Your task to perform on an android device: What is the news today? Image 0: 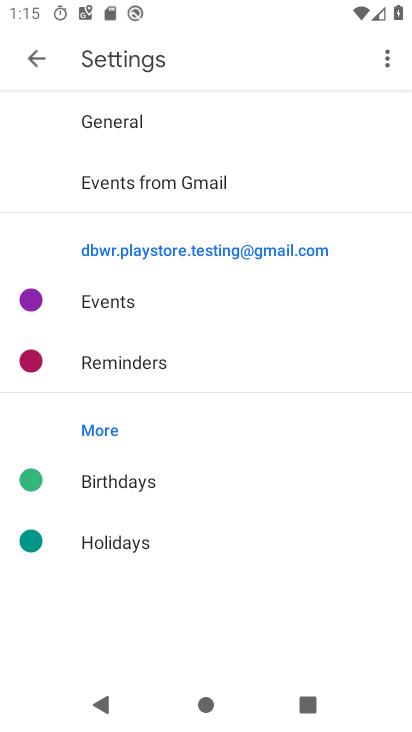
Step 0: press home button
Your task to perform on an android device: What is the news today? Image 1: 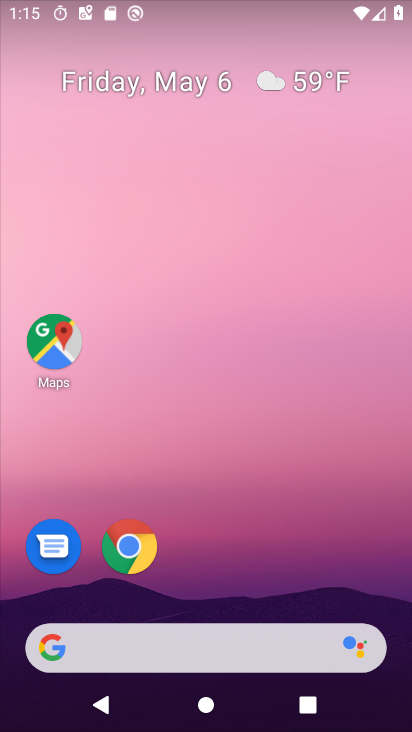
Step 1: click (131, 551)
Your task to perform on an android device: What is the news today? Image 2: 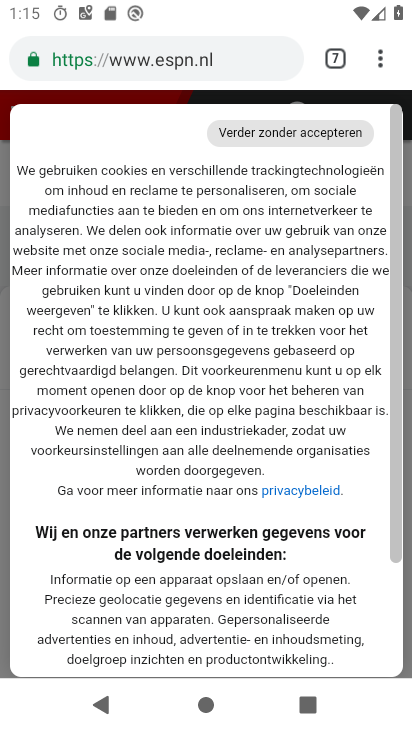
Step 2: click (340, 54)
Your task to perform on an android device: What is the news today? Image 3: 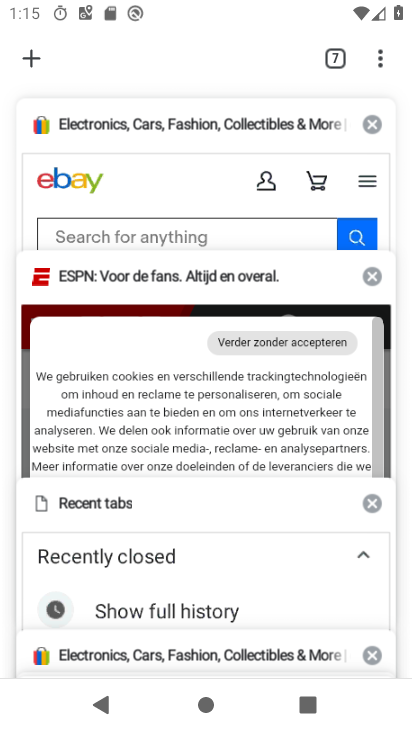
Step 3: click (26, 62)
Your task to perform on an android device: What is the news today? Image 4: 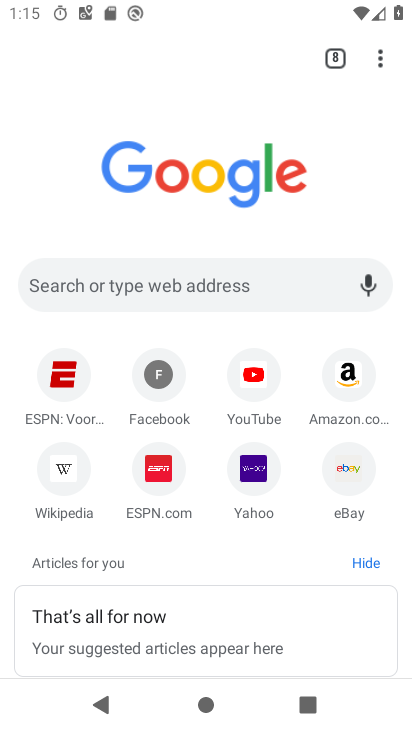
Step 4: click (170, 284)
Your task to perform on an android device: What is the news today? Image 5: 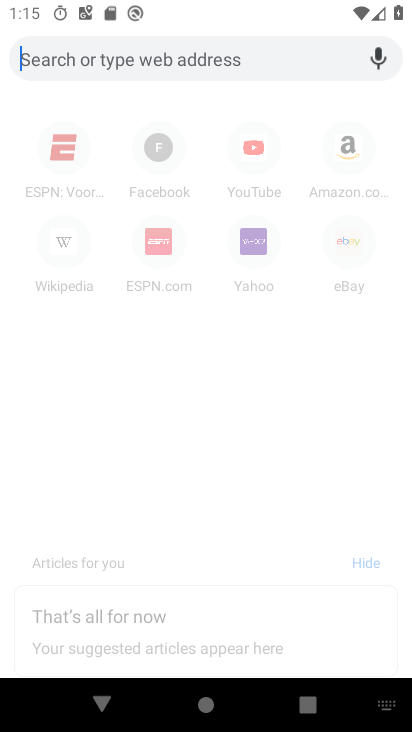
Step 5: type "news"
Your task to perform on an android device: What is the news today? Image 6: 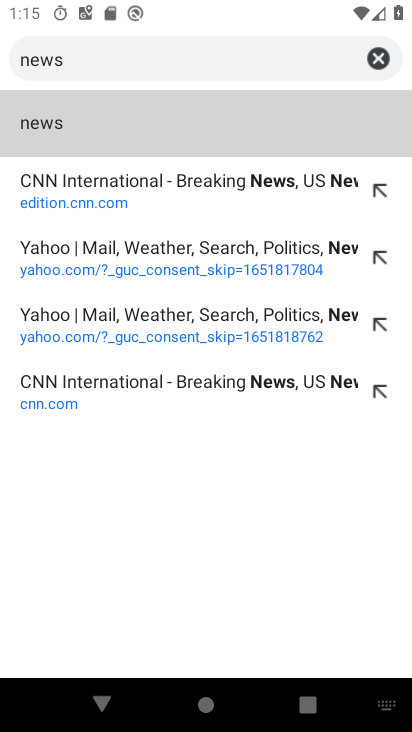
Step 6: click (103, 135)
Your task to perform on an android device: What is the news today? Image 7: 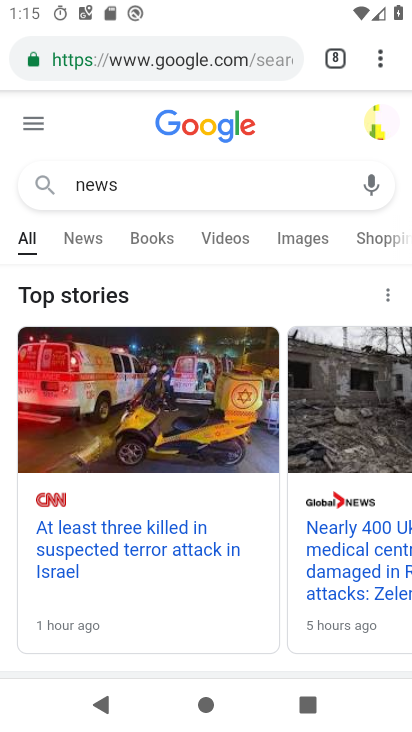
Step 7: click (86, 240)
Your task to perform on an android device: What is the news today? Image 8: 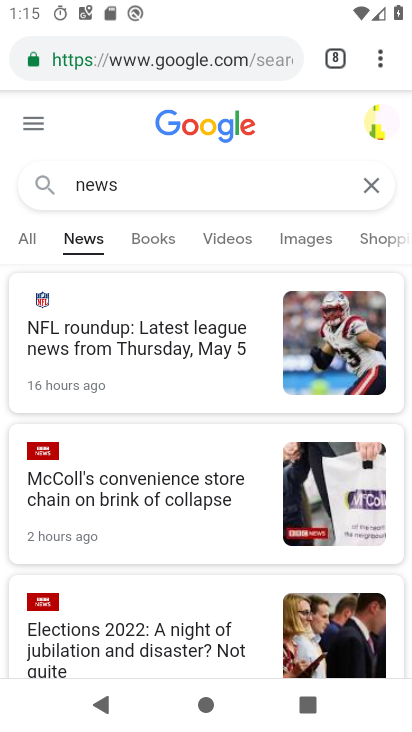
Step 8: task complete